Your task to perform on an android device: turn off priority inbox in the gmail app Image 0: 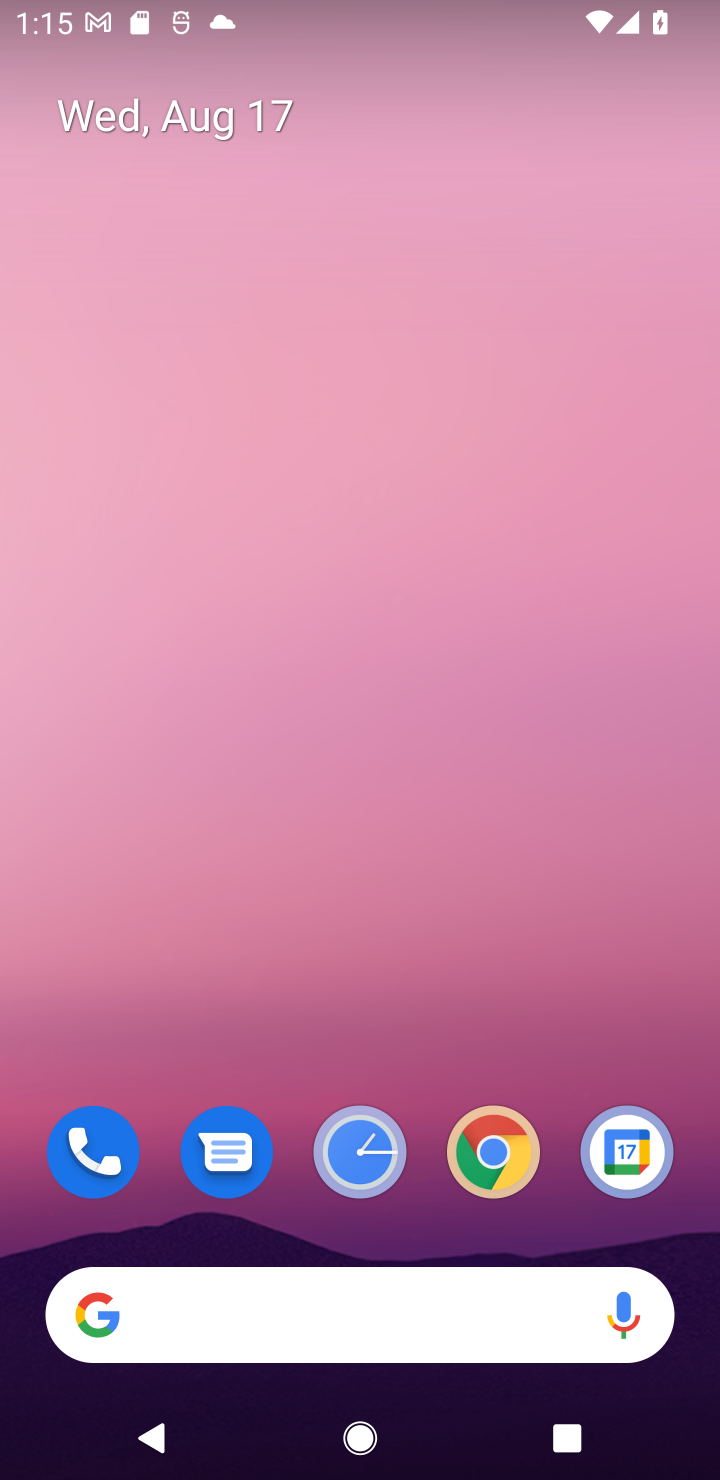
Step 0: drag from (699, 1245) to (430, 40)
Your task to perform on an android device: turn off priority inbox in the gmail app Image 1: 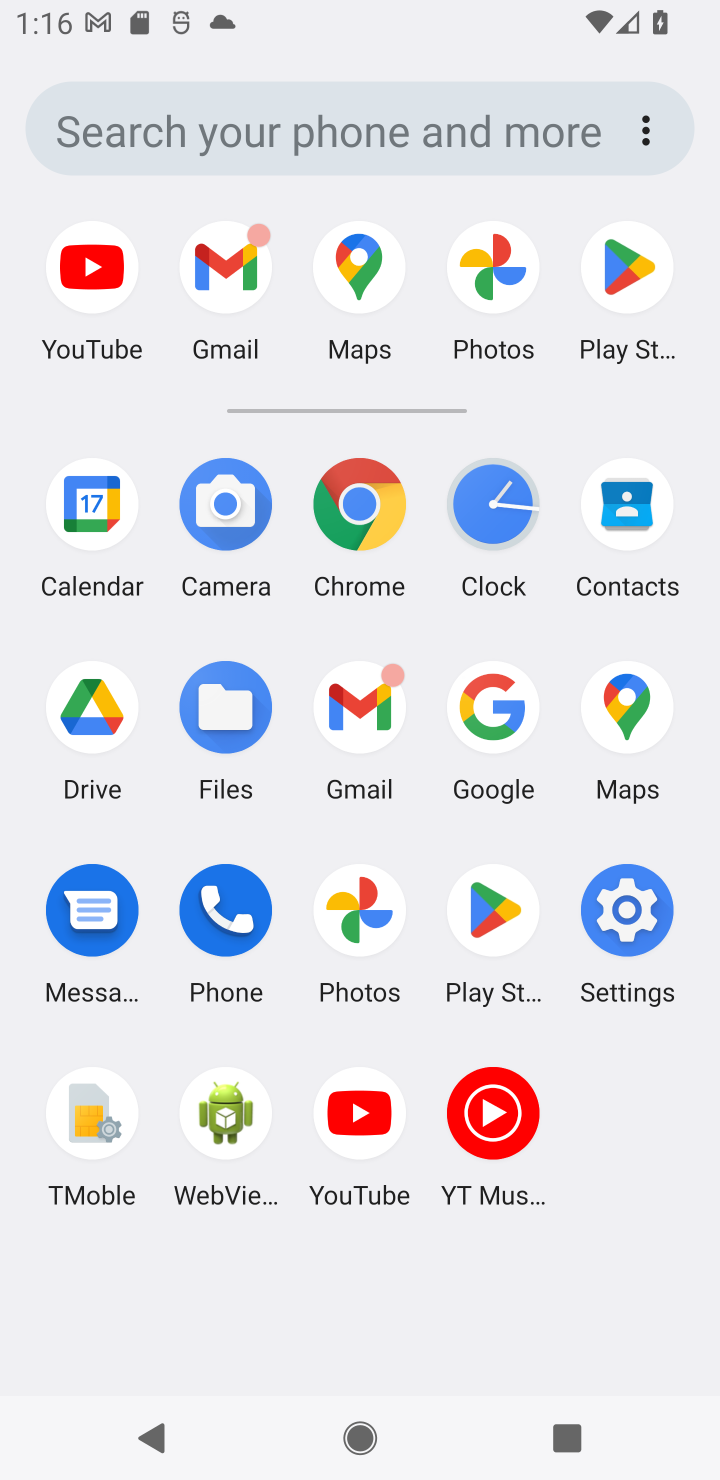
Step 1: click (340, 724)
Your task to perform on an android device: turn off priority inbox in the gmail app Image 2: 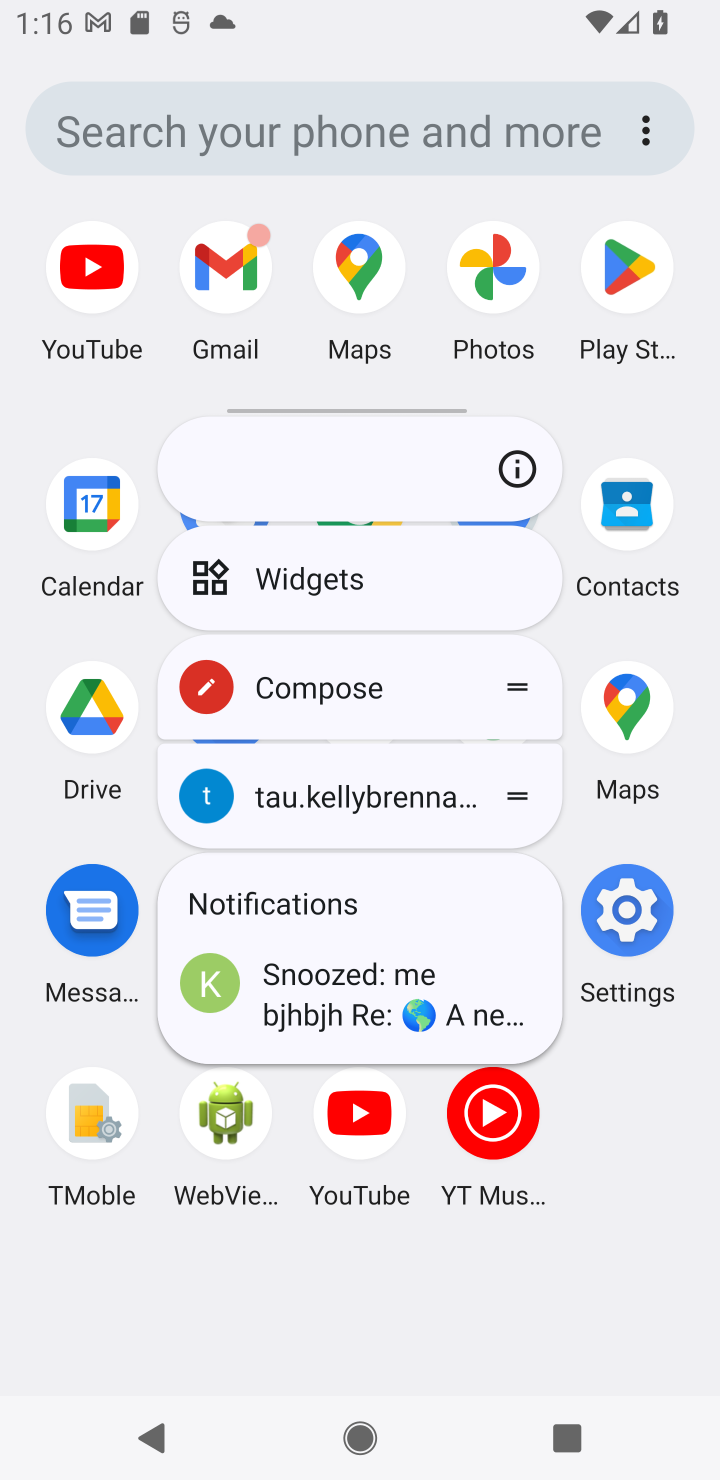
Step 2: press back button
Your task to perform on an android device: turn off priority inbox in the gmail app Image 3: 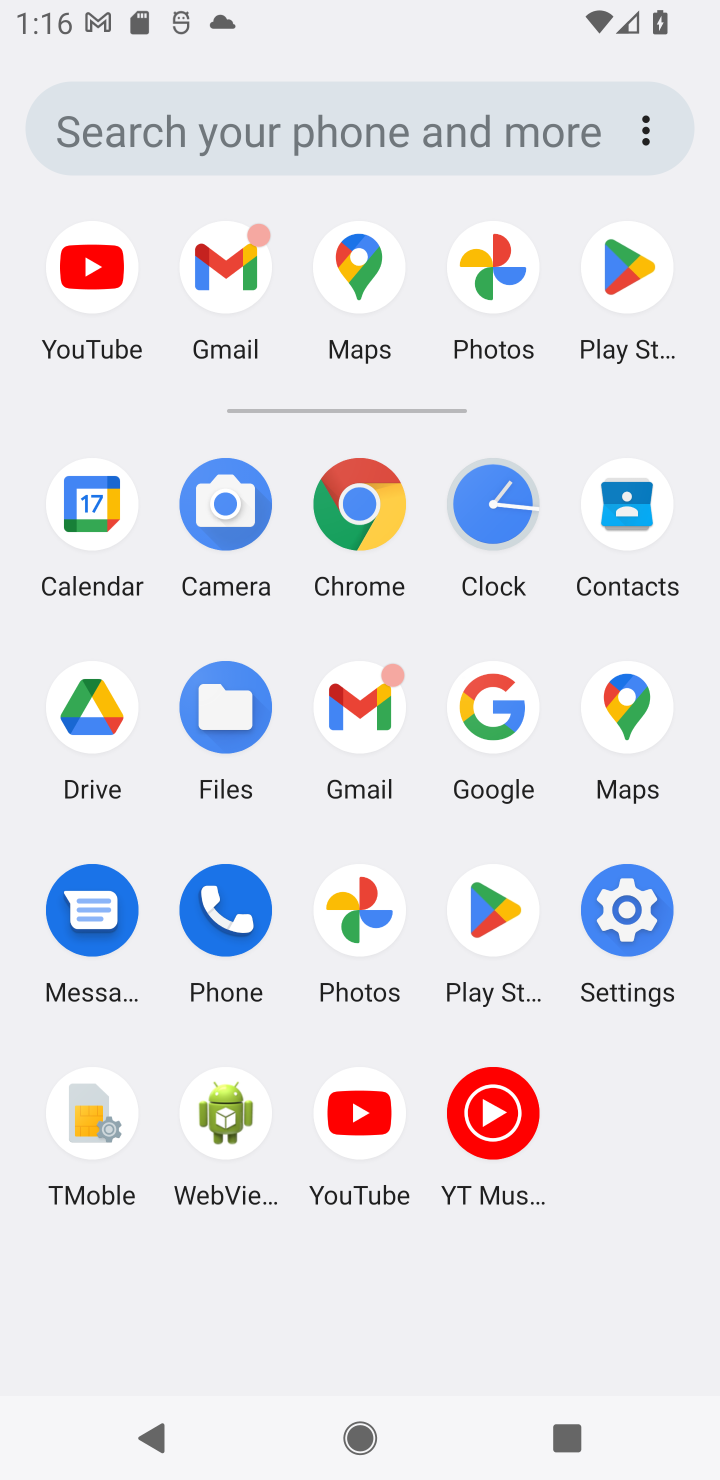
Step 3: click (350, 697)
Your task to perform on an android device: turn off priority inbox in the gmail app Image 4: 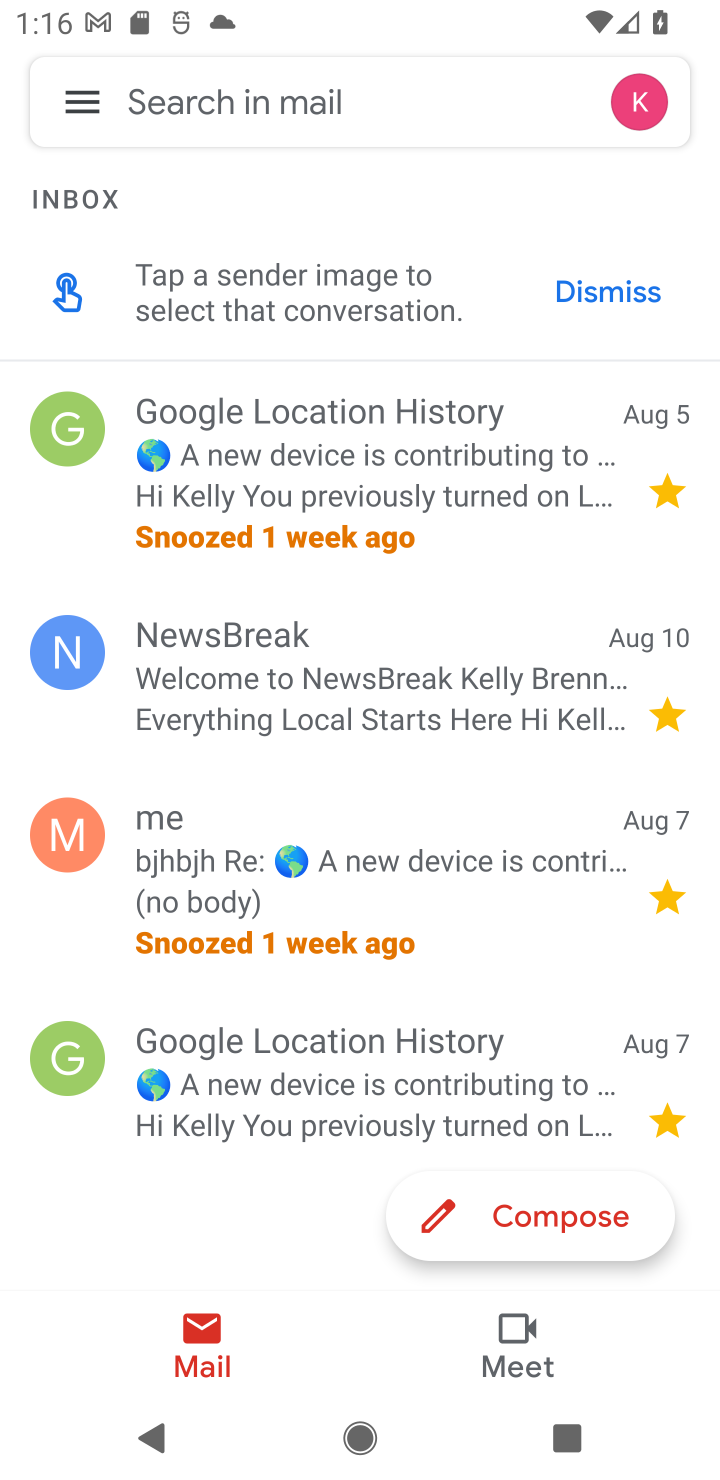
Step 4: click (84, 102)
Your task to perform on an android device: turn off priority inbox in the gmail app Image 5: 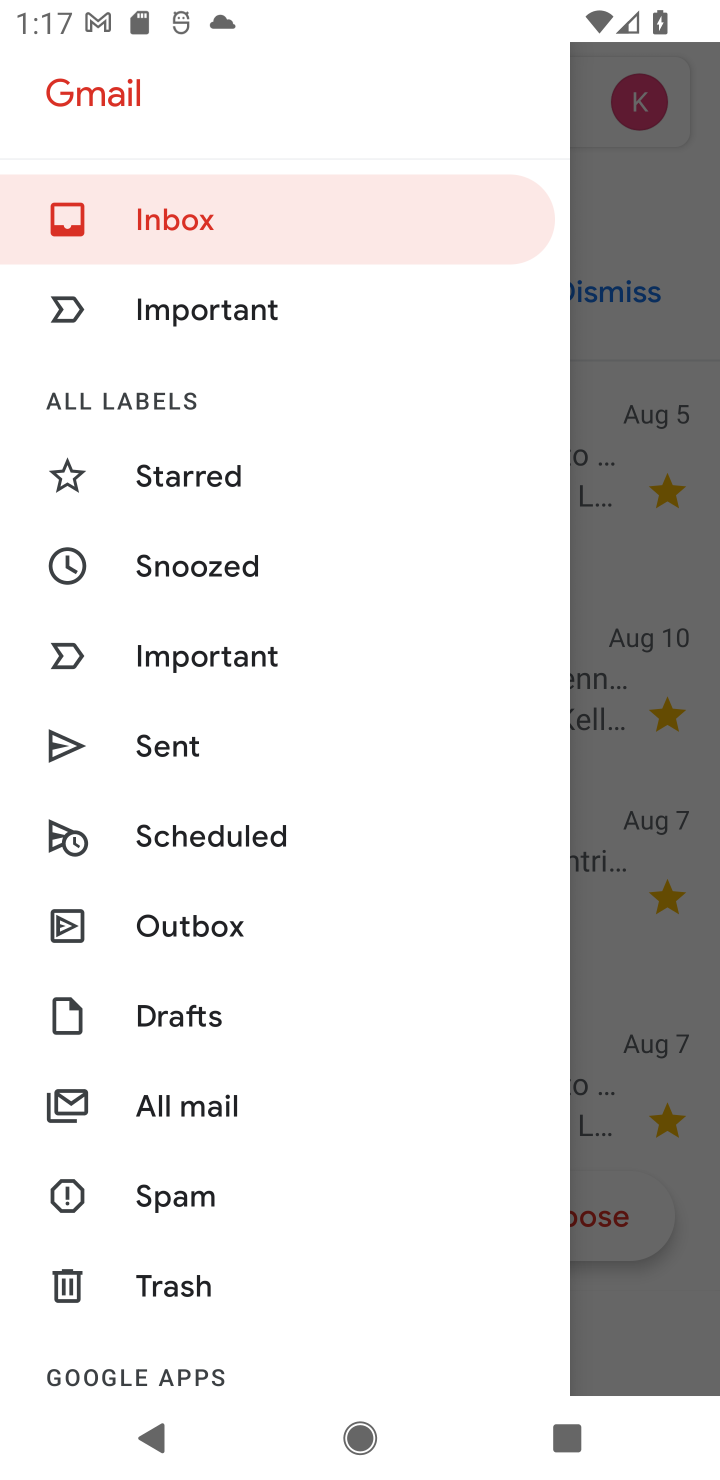
Step 5: drag from (214, 1303) to (332, 115)
Your task to perform on an android device: turn off priority inbox in the gmail app Image 6: 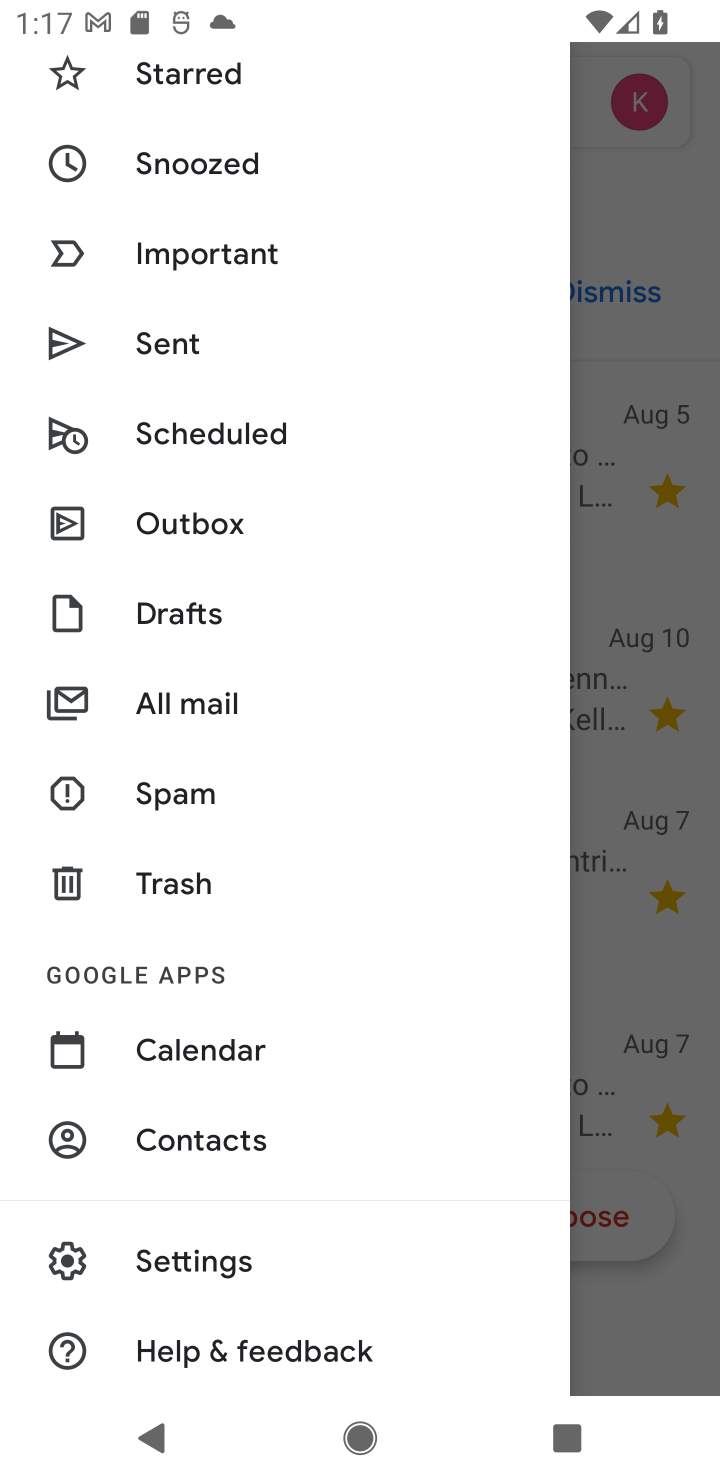
Step 6: click (231, 1276)
Your task to perform on an android device: turn off priority inbox in the gmail app Image 7: 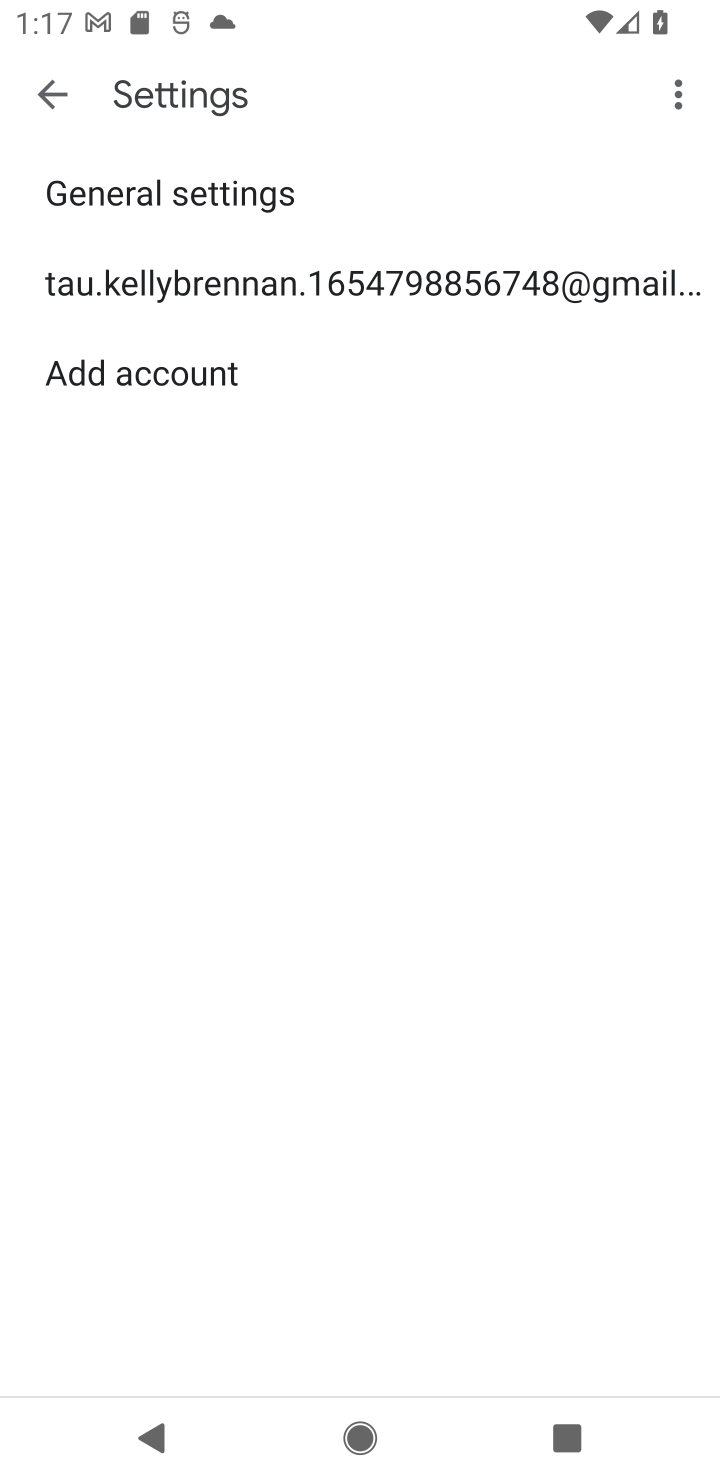
Step 7: click (403, 294)
Your task to perform on an android device: turn off priority inbox in the gmail app Image 8: 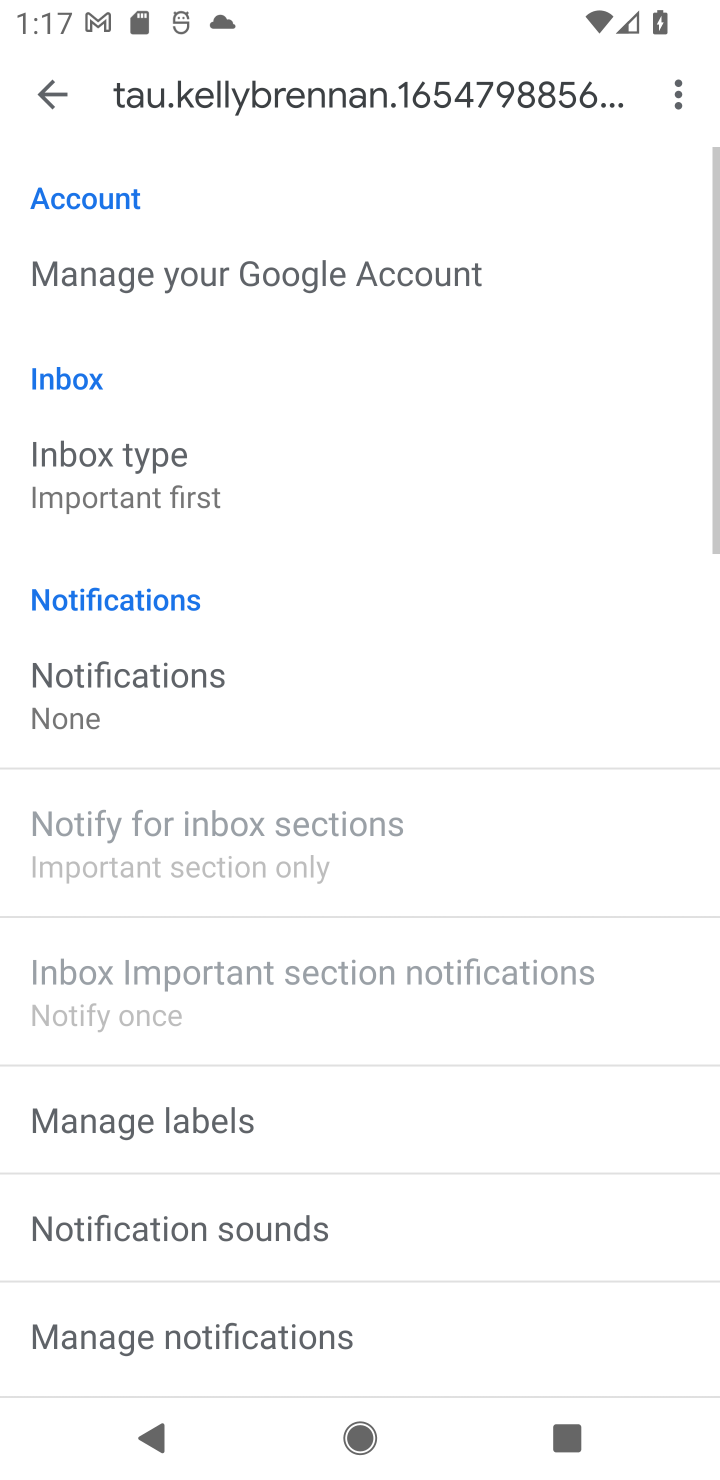
Step 8: click (169, 476)
Your task to perform on an android device: turn off priority inbox in the gmail app Image 9: 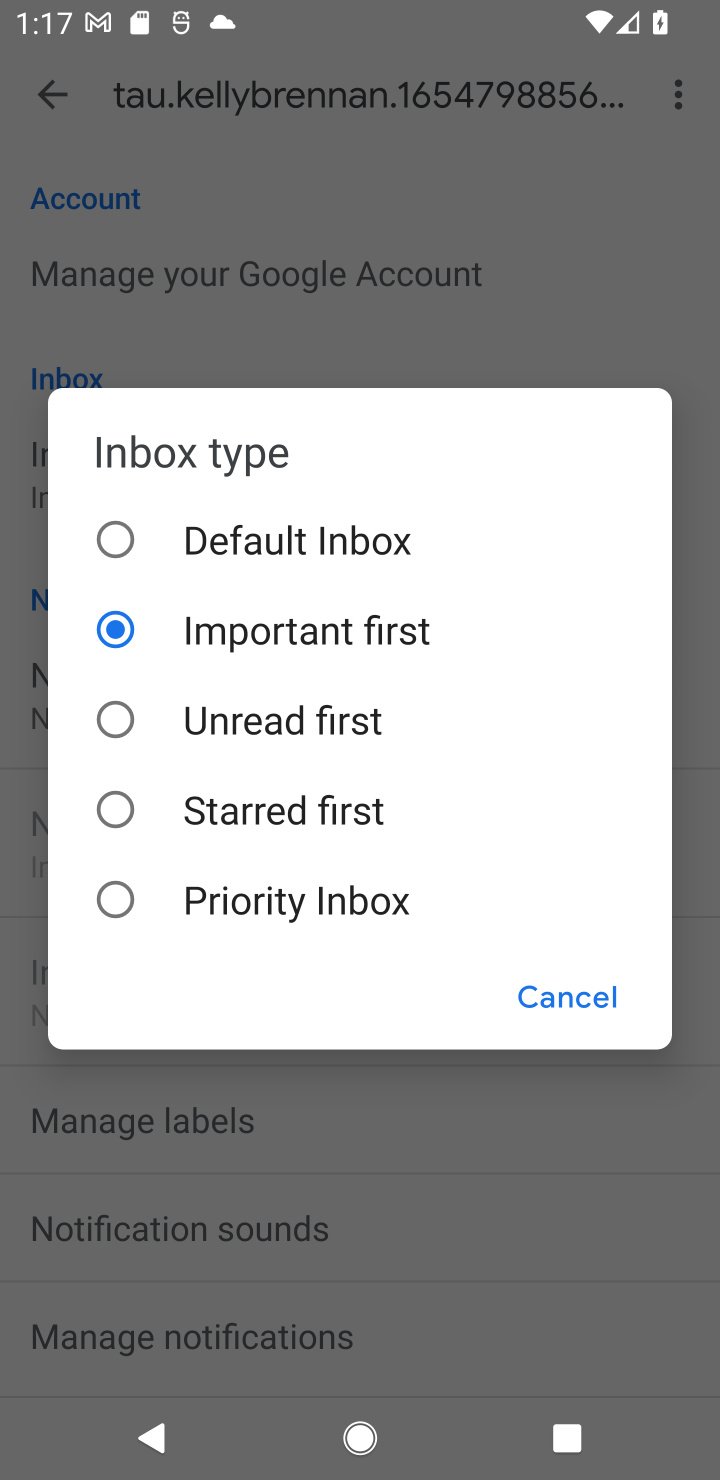
Step 9: click (207, 545)
Your task to perform on an android device: turn off priority inbox in the gmail app Image 10: 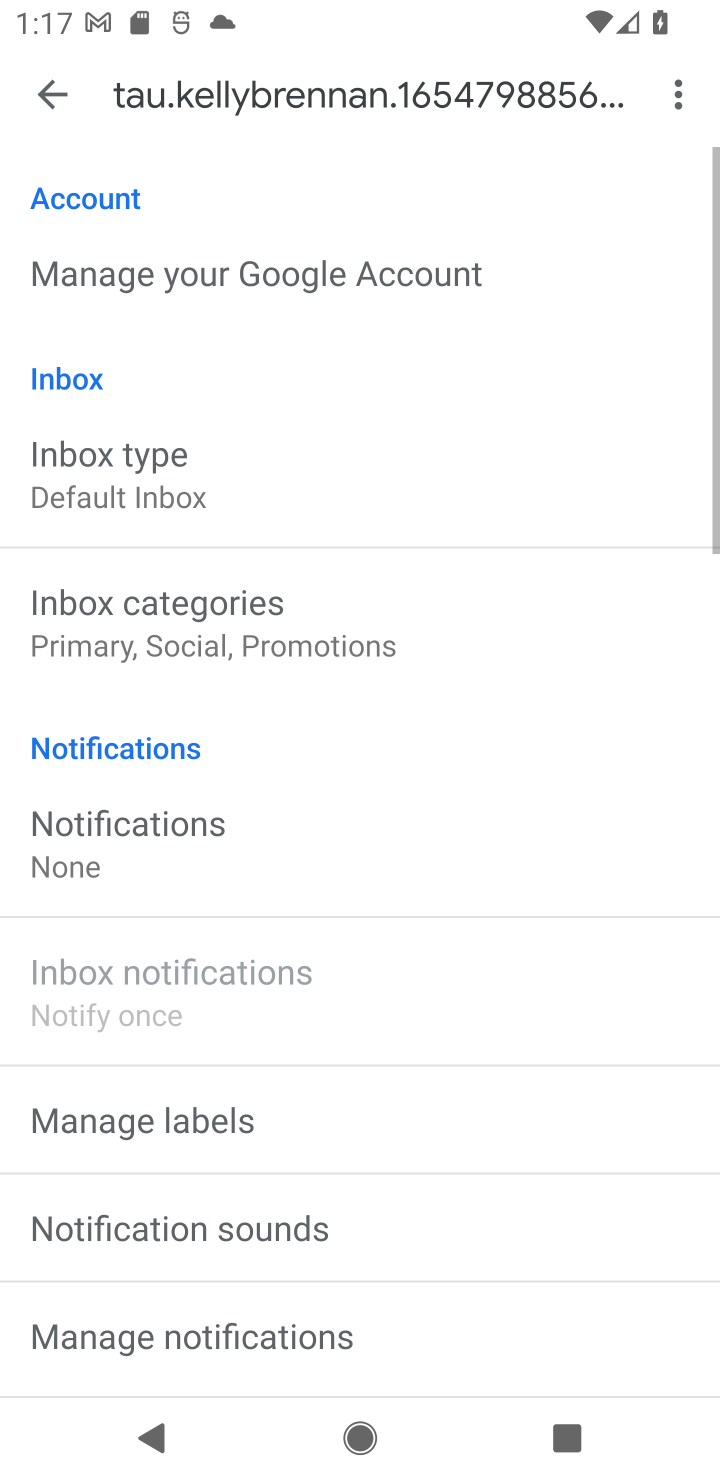
Step 10: task complete